Your task to perform on an android device: turn on wifi Image 0: 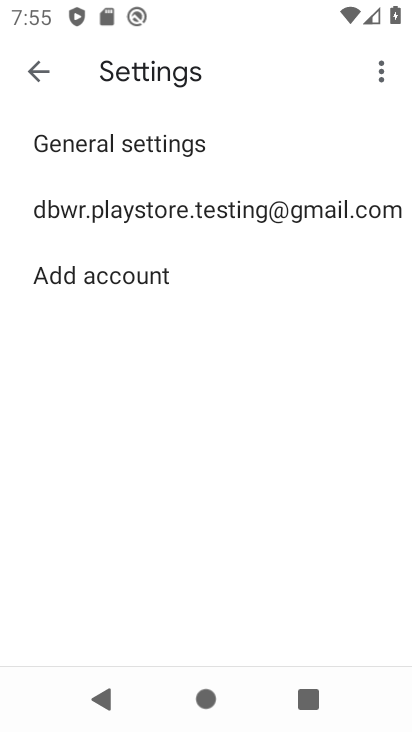
Step 0: press home button
Your task to perform on an android device: turn on wifi Image 1: 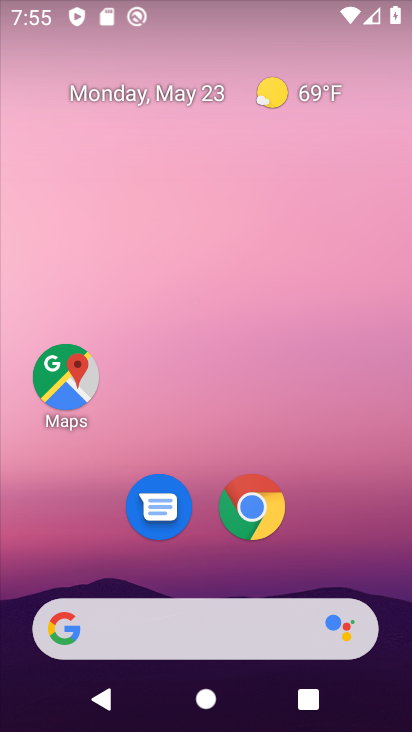
Step 1: drag from (313, 561) to (291, 4)
Your task to perform on an android device: turn on wifi Image 2: 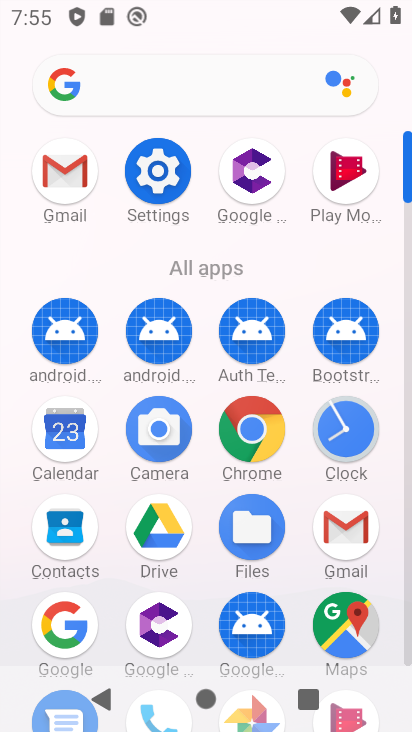
Step 2: click (153, 167)
Your task to perform on an android device: turn on wifi Image 3: 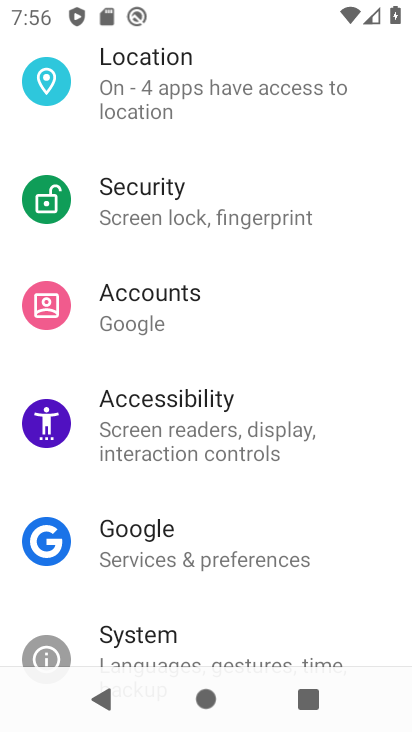
Step 3: drag from (409, 157) to (396, 474)
Your task to perform on an android device: turn on wifi Image 4: 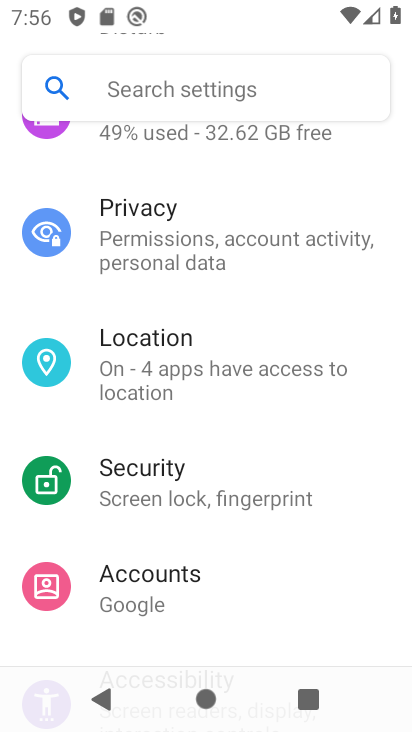
Step 4: drag from (386, 187) to (381, 571)
Your task to perform on an android device: turn on wifi Image 5: 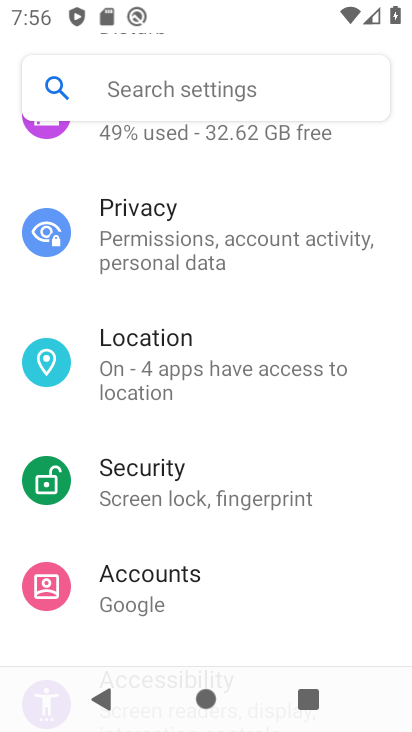
Step 5: drag from (375, 354) to (387, 549)
Your task to perform on an android device: turn on wifi Image 6: 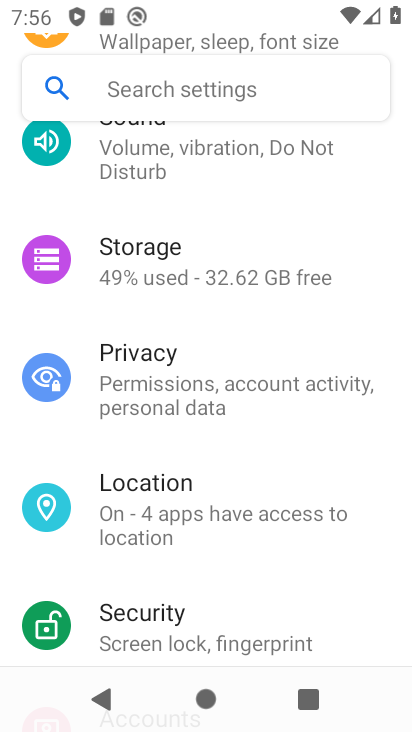
Step 6: drag from (359, 240) to (360, 514)
Your task to perform on an android device: turn on wifi Image 7: 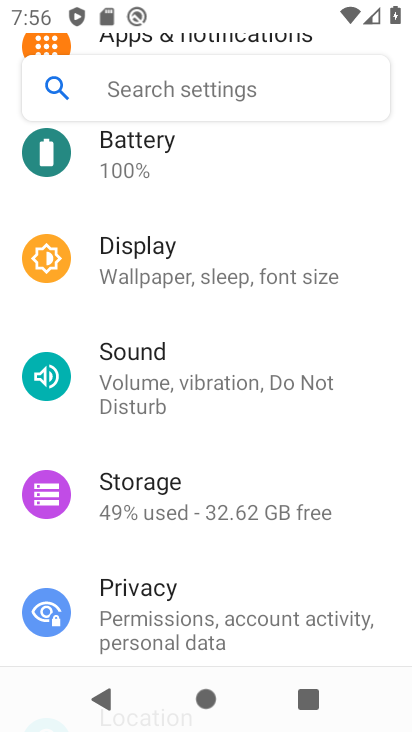
Step 7: drag from (360, 223) to (362, 551)
Your task to perform on an android device: turn on wifi Image 8: 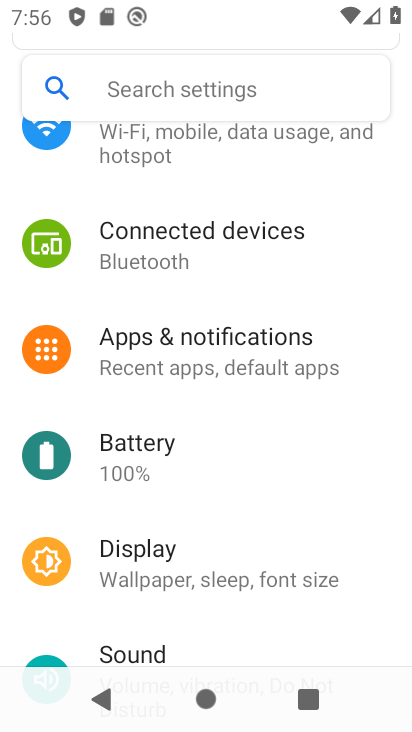
Step 8: drag from (294, 194) to (310, 458)
Your task to perform on an android device: turn on wifi Image 9: 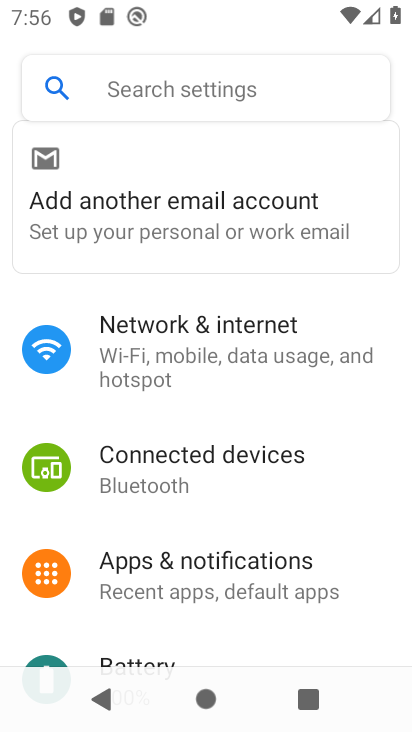
Step 9: click (155, 343)
Your task to perform on an android device: turn on wifi Image 10: 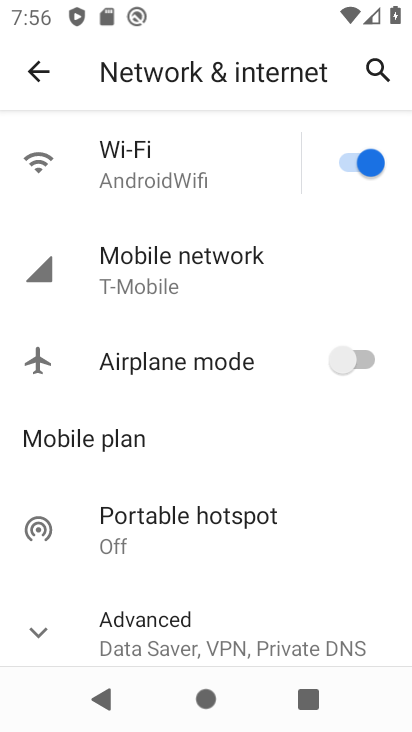
Step 10: task complete